Your task to perform on an android device: toggle airplane mode Image 0: 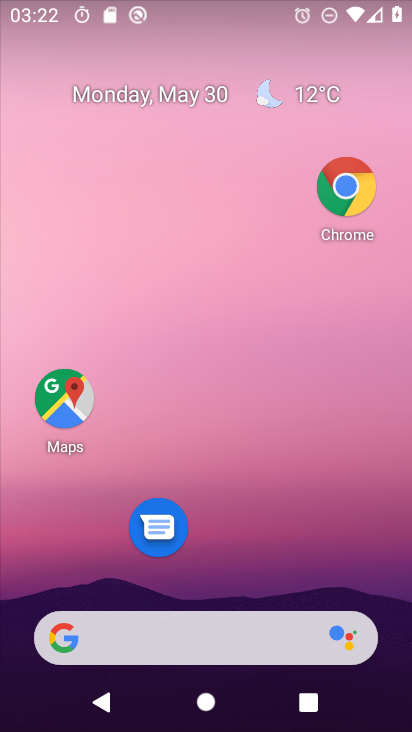
Step 0: drag from (299, 179) to (310, 102)
Your task to perform on an android device: toggle airplane mode Image 1: 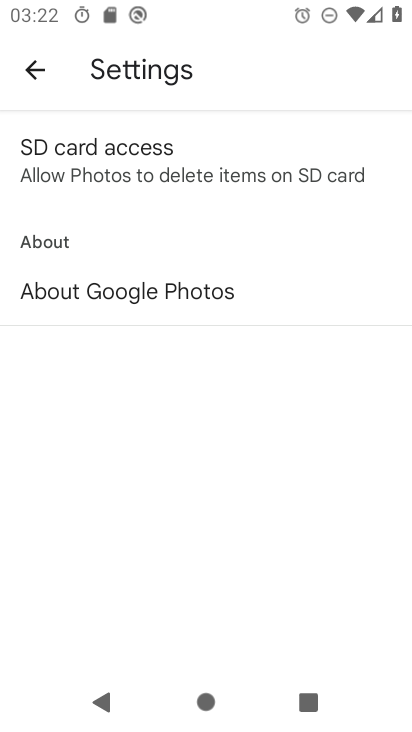
Step 1: press home button
Your task to perform on an android device: toggle airplane mode Image 2: 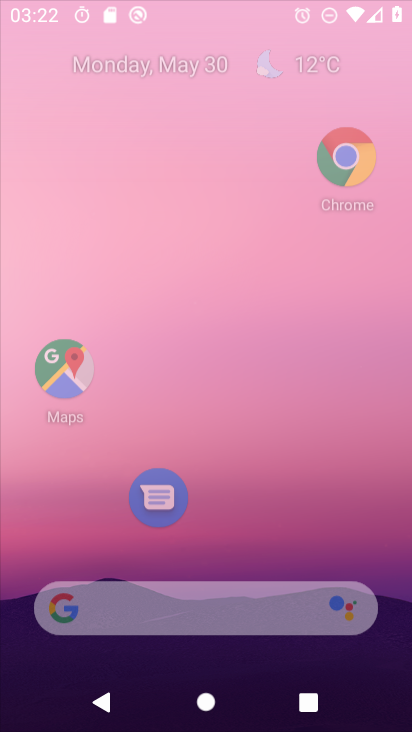
Step 2: drag from (276, 614) to (341, 4)
Your task to perform on an android device: toggle airplane mode Image 3: 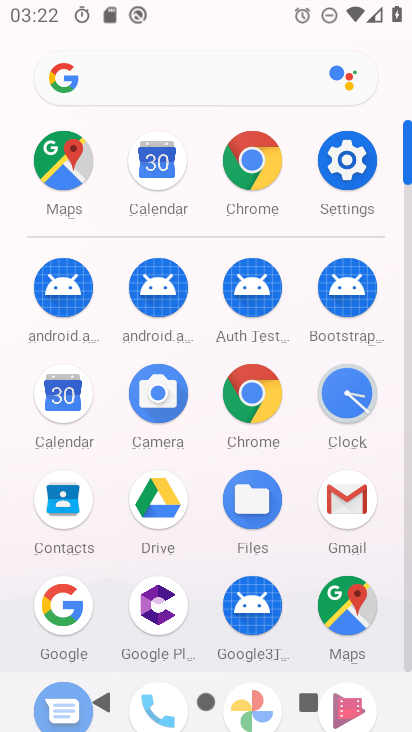
Step 3: click (354, 153)
Your task to perform on an android device: toggle airplane mode Image 4: 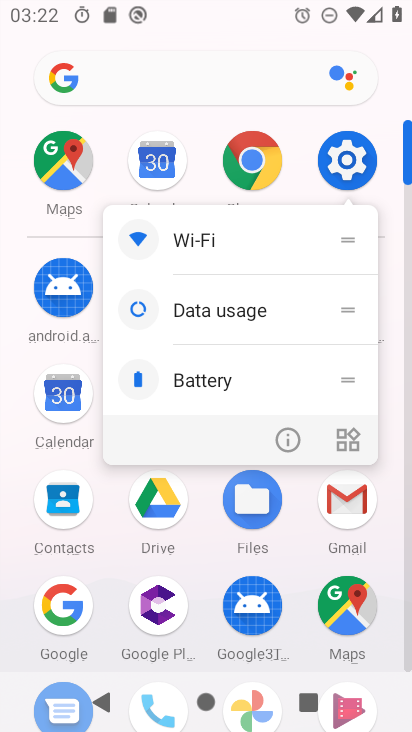
Step 4: click (301, 440)
Your task to perform on an android device: toggle airplane mode Image 5: 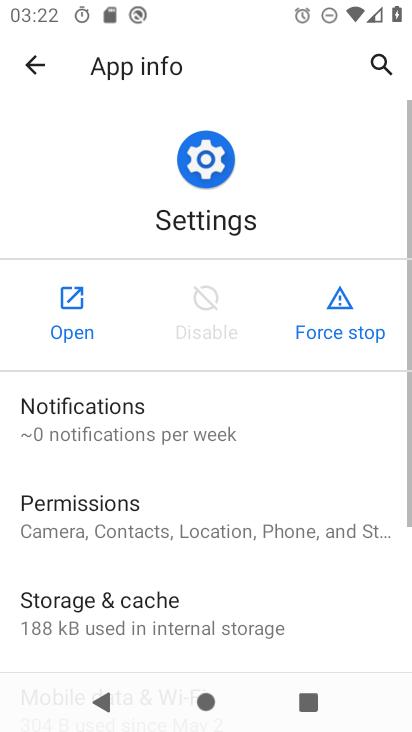
Step 5: click (54, 318)
Your task to perform on an android device: toggle airplane mode Image 6: 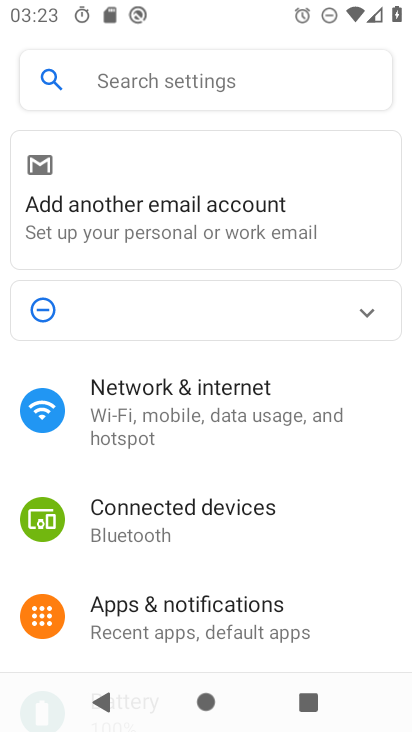
Step 6: click (150, 412)
Your task to perform on an android device: toggle airplane mode Image 7: 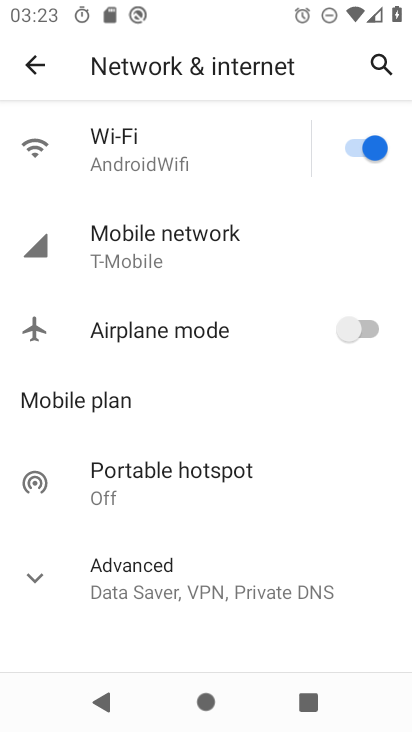
Step 7: click (273, 336)
Your task to perform on an android device: toggle airplane mode Image 8: 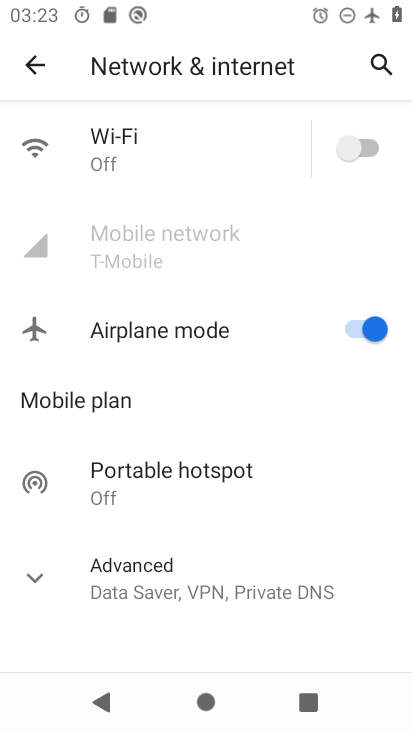
Step 8: task complete